Your task to perform on an android device: check android version Image 0: 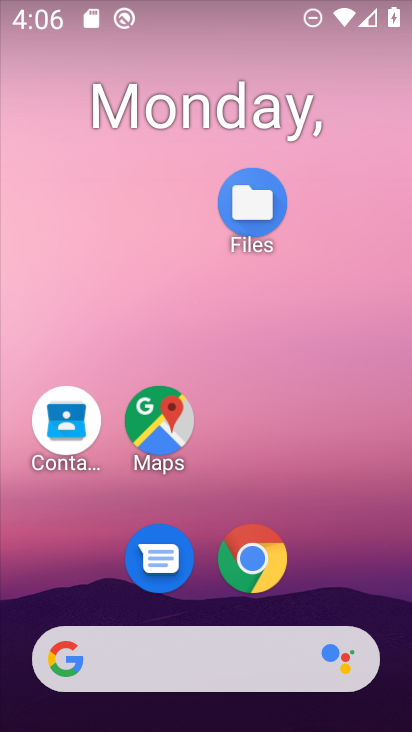
Step 0: drag from (169, 647) to (208, 310)
Your task to perform on an android device: check android version Image 1: 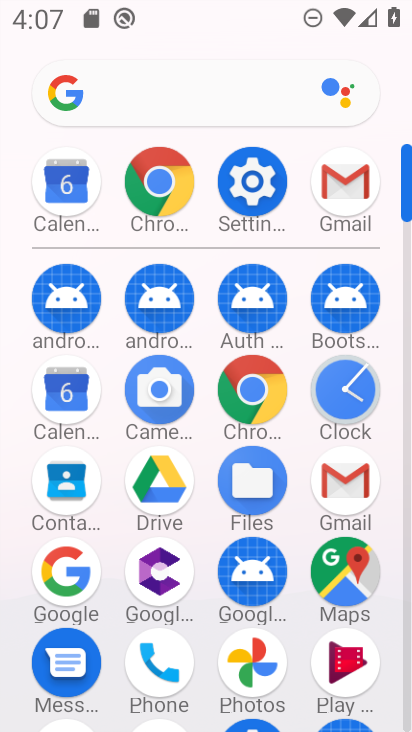
Step 1: click (261, 190)
Your task to perform on an android device: check android version Image 2: 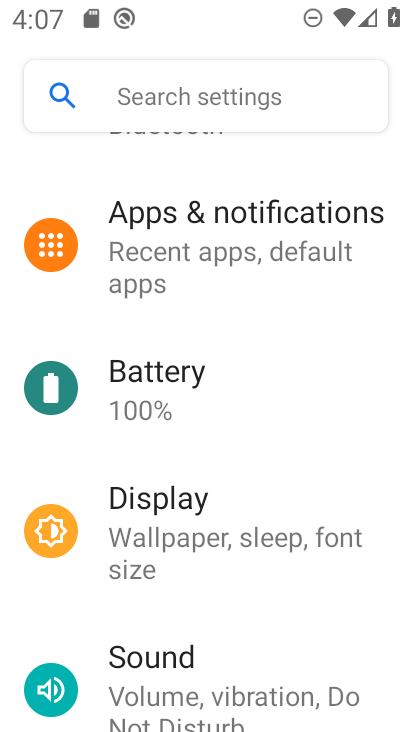
Step 2: drag from (215, 646) to (239, 330)
Your task to perform on an android device: check android version Image 3: 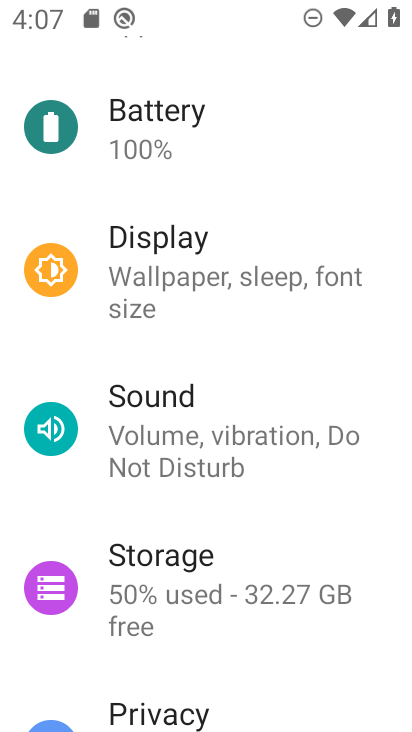
Step 3: drag from (207, 553) to (247, 325)
Your task to perform on an android device: check android version Image 4: 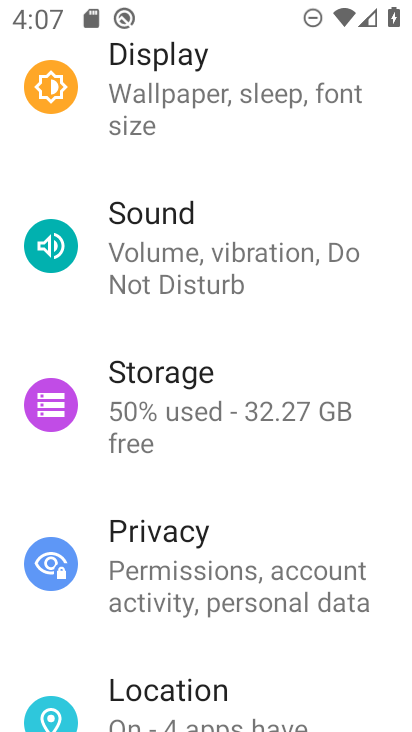
Step 4: drag from (233, 584) to (276, 347)
Your task to perform on an android device: check android version Image 5: 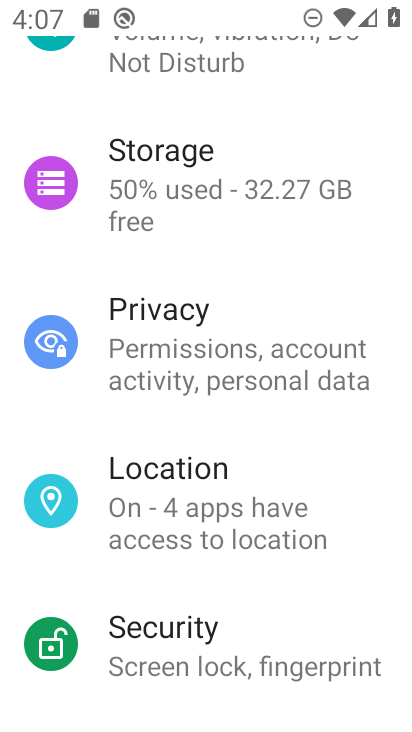
Step 5: drag from (220, 525) to (295, 250)
Your task to perform on an android device: check android version Image 6: 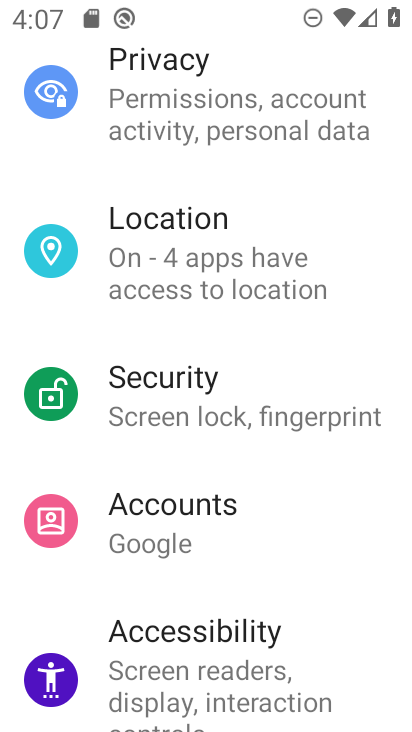
Step 6: drag from (194, 608) to (275, 313)
Your task to perform on an android device: check android version Image 7: 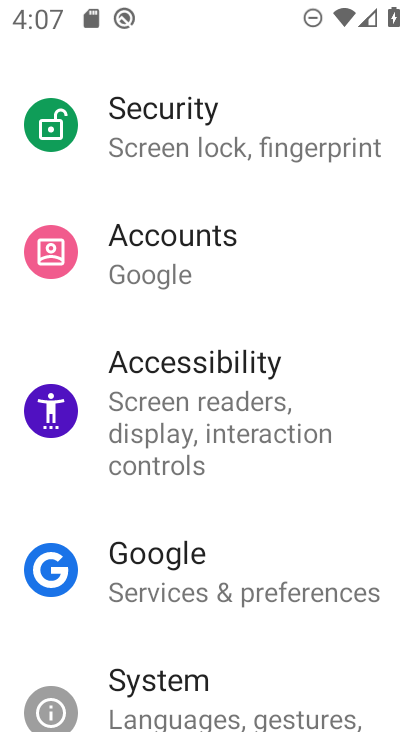
Step 7: drag from (201, 599) to (258, 337)
Your task to perform on an android device: check android version Image 8: 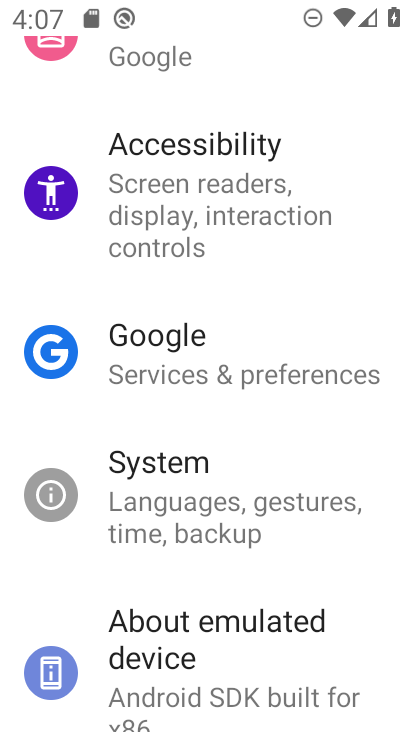
Step 8: drag from (204, 580) to (252, 318)
Your task to perform on an android device: check android version Image 9: 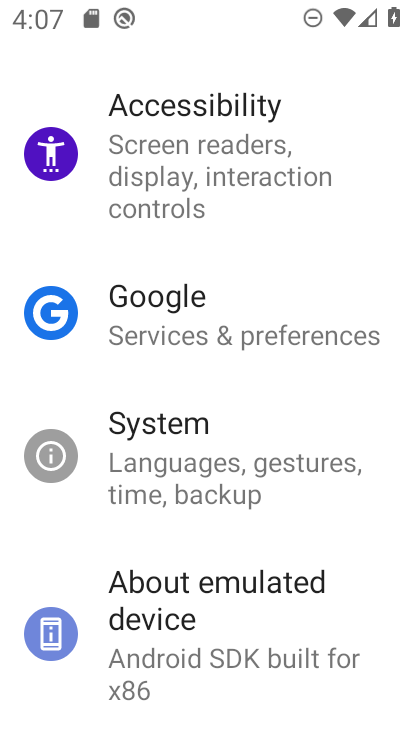
Step 9: drag from (223, 591) to (239, 342)
Your task to perform on an android device: check android version Image 10: 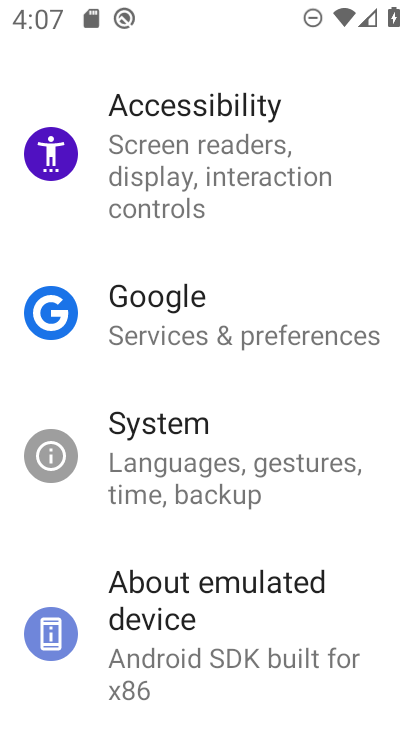
Step 10: drag from (192, 640) to (213, 380)
Your task to perform on an android device: check android version Image 11: 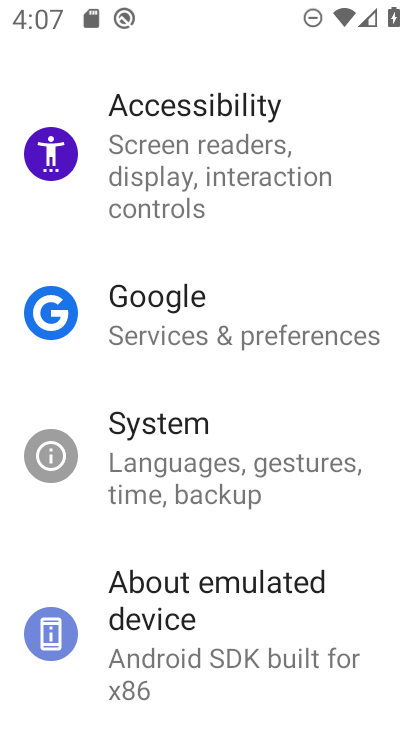
Step 11: click (198, 618)
Your task to perform on an android device: check android version Image 12: 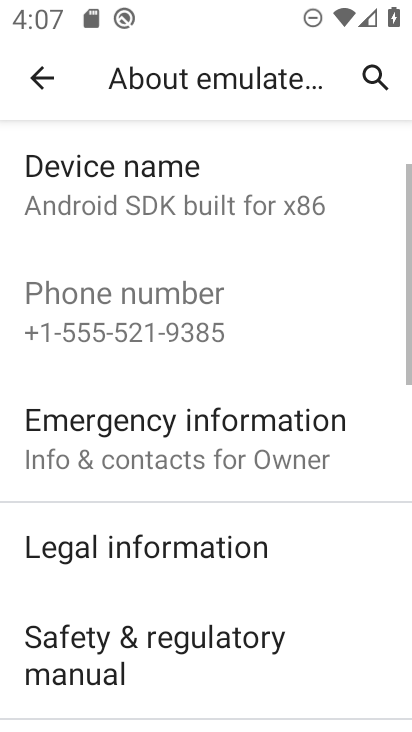
Step 12: drag from (180, 647) to (183, 419)
Your task to perform on an android device: check android version Image 13: 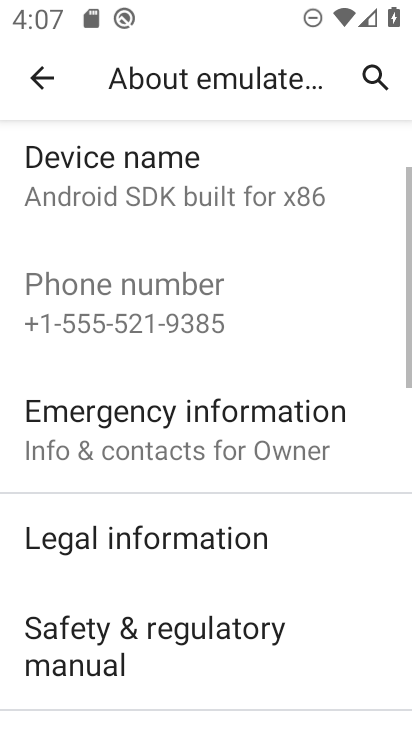
Step 13: drag from (167, 594) to (184, 423)
Your task to perform on an android device: check android version Image 14: 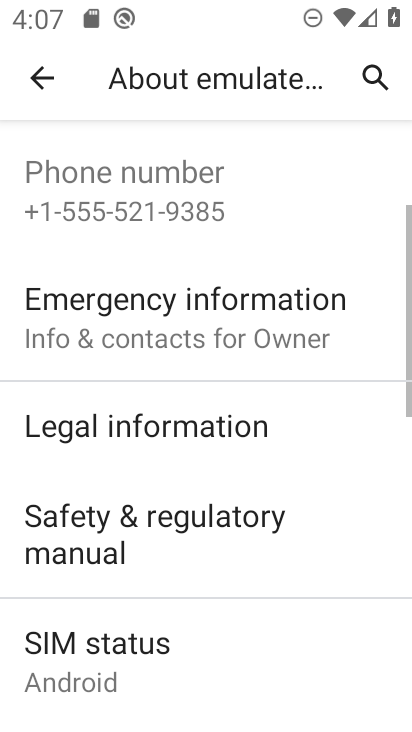
Step 14: drag from (153, 647) to (198, 451)
Your task to perform on an android device: check android version Image 15: 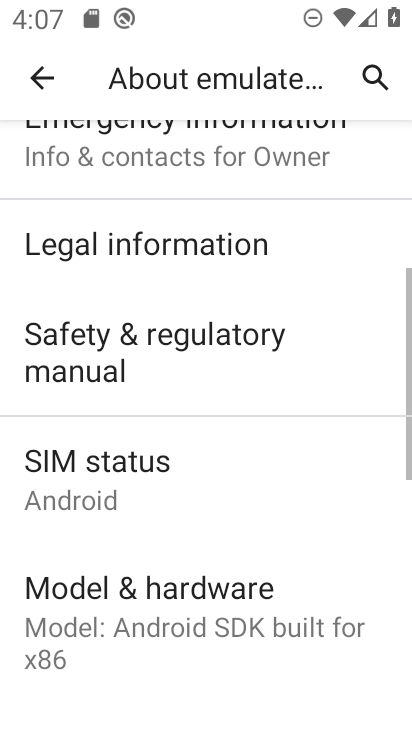
Step 15: drag from (173, 602) to (228, 350)
Your task to perform on an android device: check android version Image 16: 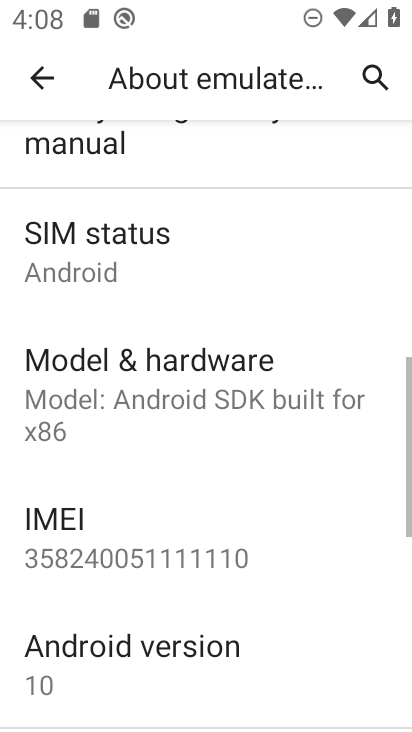
Step 16: click (158, 679)
Your task to perform on an android device: check android version Image 17: 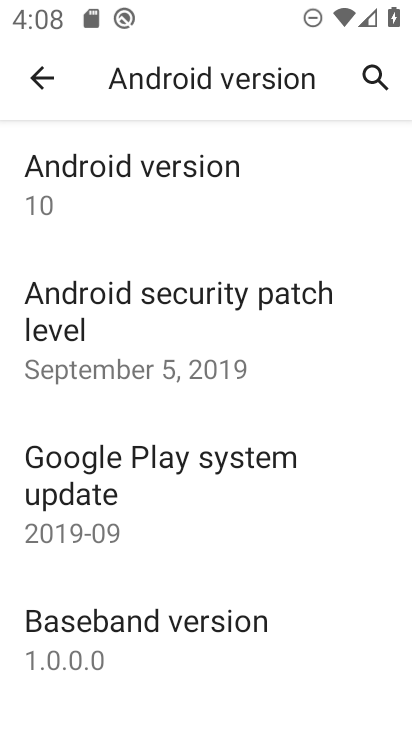
Step 17: click (290, 168)
Your task to perform on an android device: check android version Image 18: 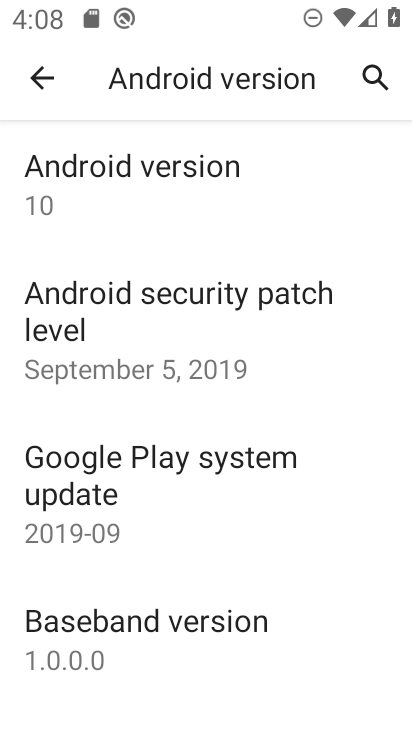
Step 18: task complete